Your task to perform on an android device: Search for Mexican restaurants on Maps Image 0: 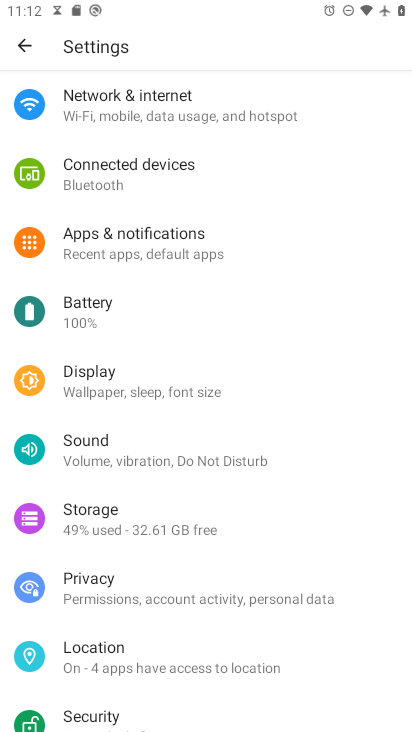
Step 0: press home button
Your task to perform on an android device: Search for Mexican restaurants on Maps Image 1: 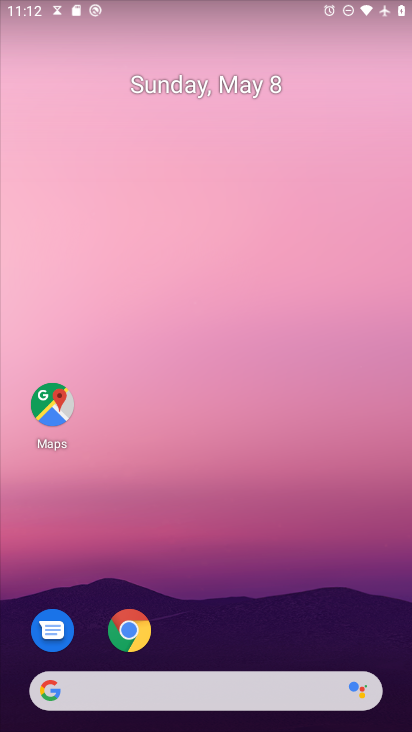
Step 1: click (52, 412)
Your task to perform on an android device: Search for Mexican restaurants on Maps Image 2: 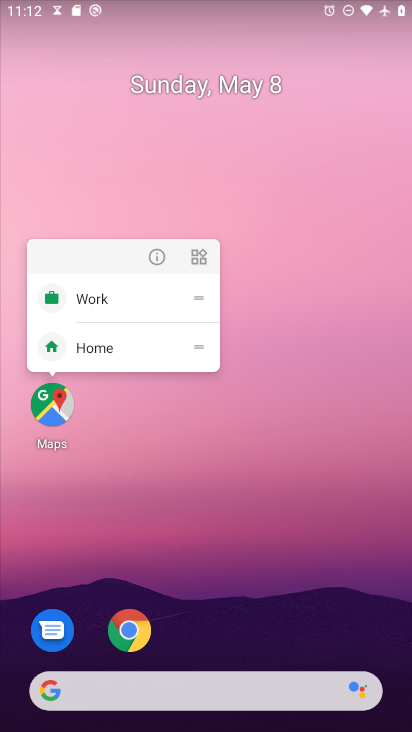
Step 2: click (75, 407)
Your task to perform on an android device: Search for Mexican restaurants on Maps Image 3: 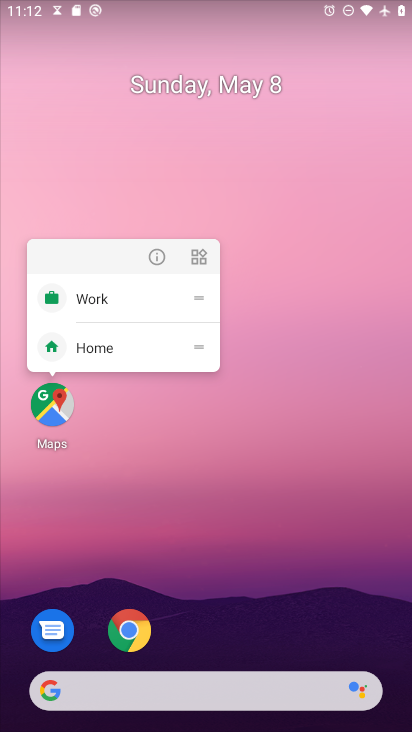
Step 3: click (46, 398)
Your task to perform on an android device: Search for Mexican restaurants on Maps Image 4: 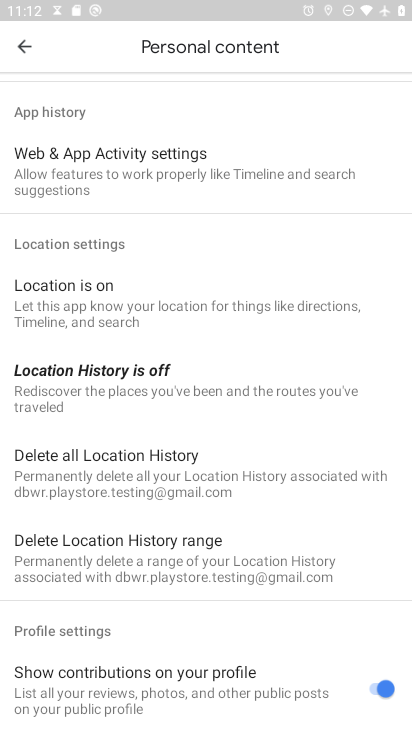
Step 4: click (23, 45)
Your task to perform on an android device: Search for Mexican restaurants on Maps Image 5: 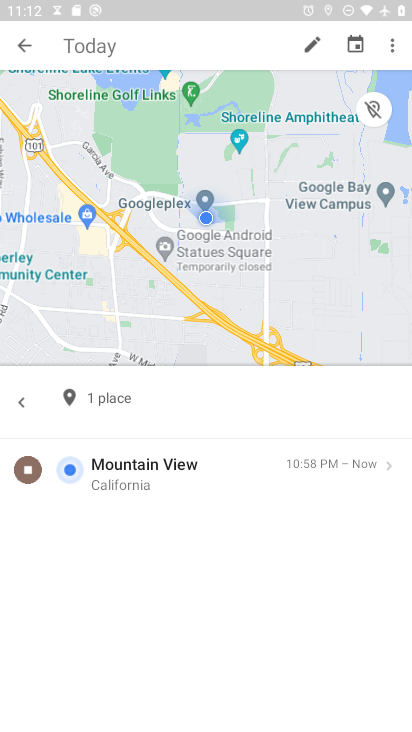
Step 5: click (23, 45)
Your task to perform on an android device: Search for Mexican restaurants on Maps Image 6: 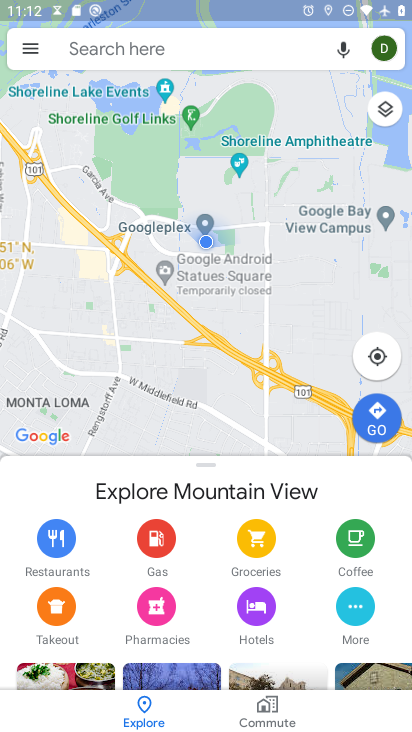
Step 6: click (140, 43)
Your task to perform on an android device: Search for Mexican restaurants on Maps Image 7: 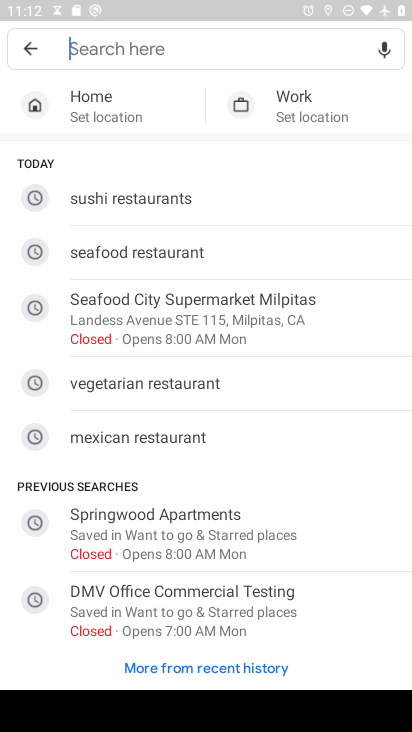
Step 7: click (143, 441)
Your task to perform on an android device: Search for Mexican restaurants on Maps Image 8: 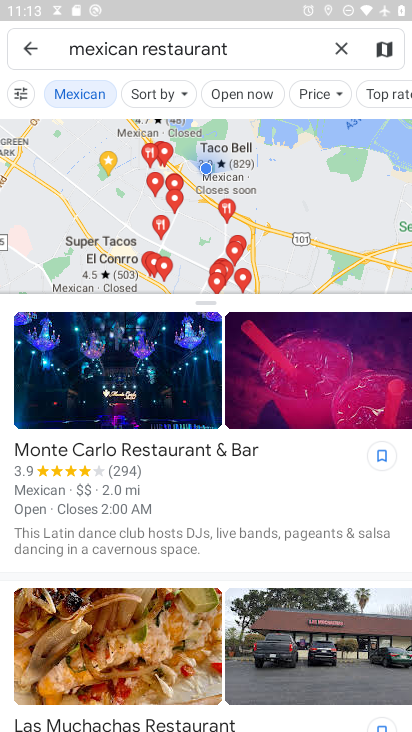
Step 8: task complete